Your task to perform on an android device: What's on my calendar today? Image 0: 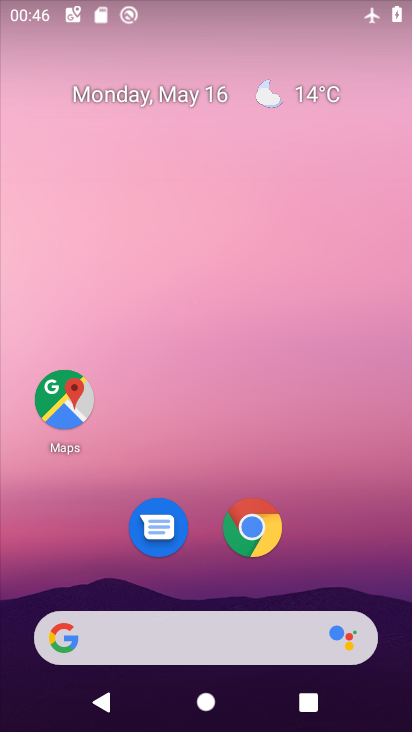
Step 0: drag from (212, 576) to (252, 11)
Your task to perform on an android device: What's on my calendar today? Image 1: 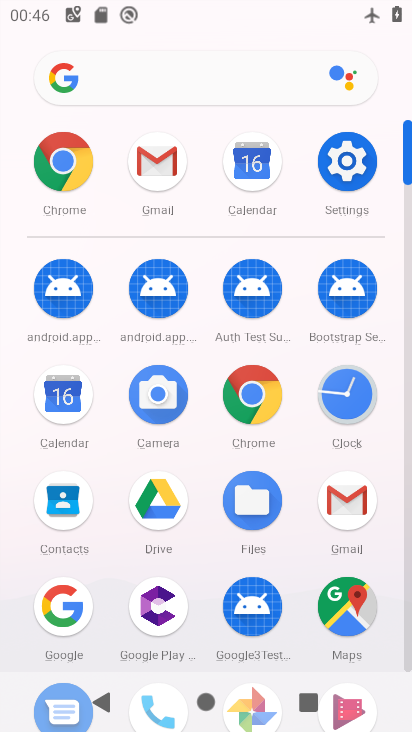
Step 1: click (263, 185)
Your task to perform on an android device: What's on my calendar today? Image 2: 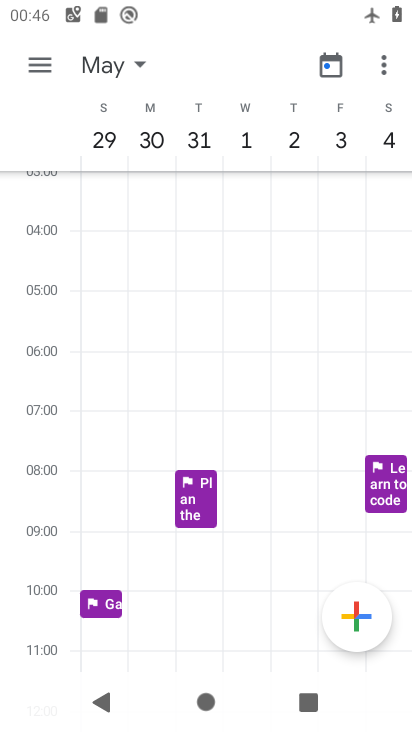
Step 2: drag from (95, 147) to (393, 127)
Your task to perform on an android device: What's on my calendar today? Image 3: 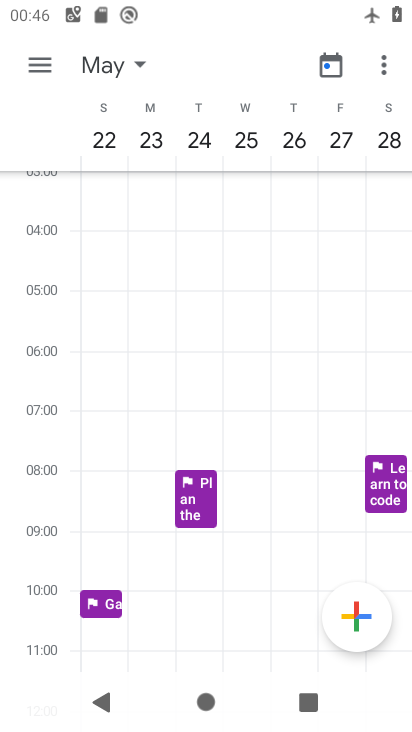
Step 3: drag from (113, 141) to (369, 139)
Your task to perform on an android device: What's on my calendar today? Image 4: 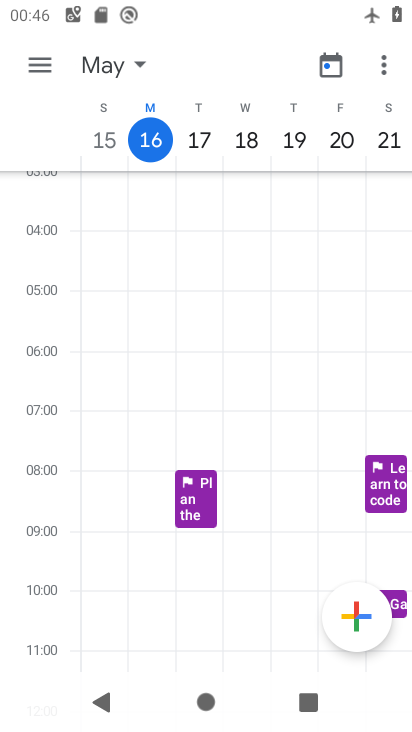
Step 4: click (39, 62)
Your task to perform on an android device: What's on my calendar today? Image 5: 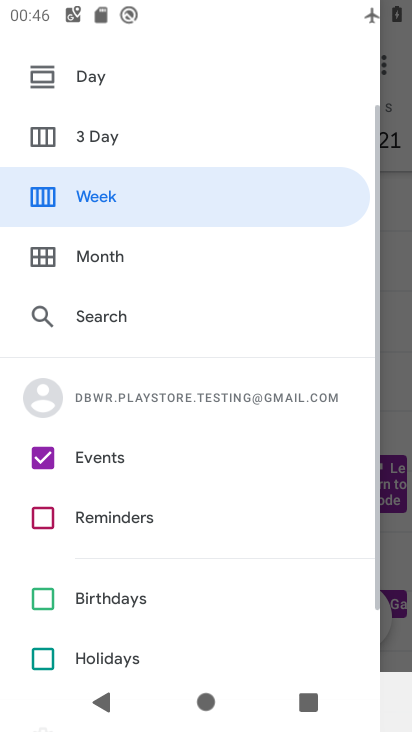
Step 5: click (51, 131)
Your task to perform on an android device: What's on my calendar today? Image 6: 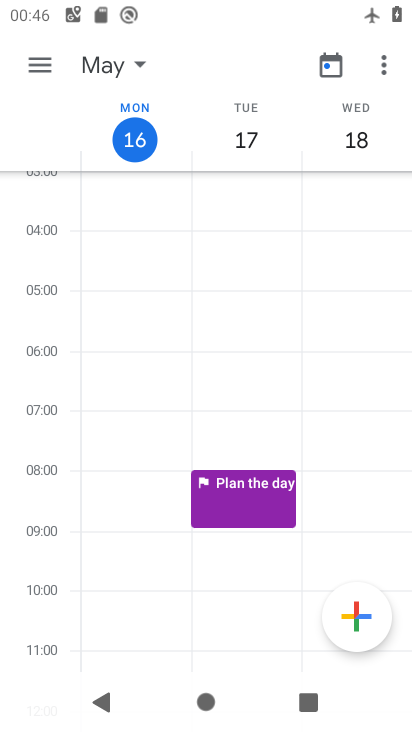
Step 6: click (33, 69)
Your task to perform on an android device: What's on my calendar today? Image 7: 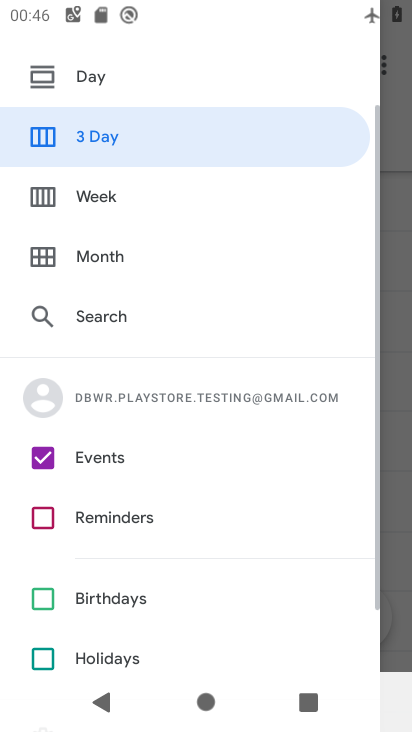
Step 7: click (94, 73)
Your task to perform on an android device: What's on my calendar today? Image 8: 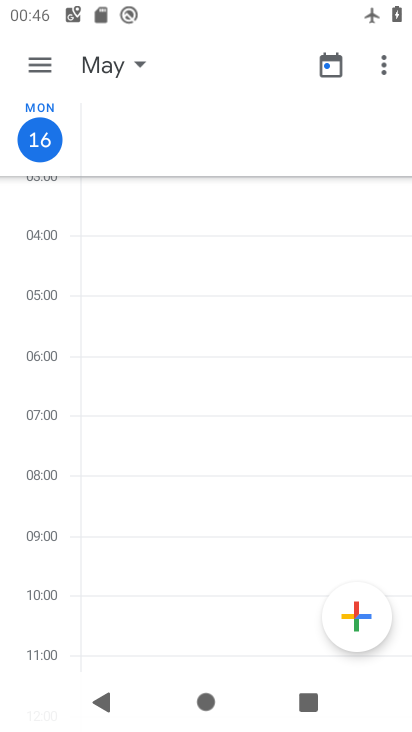
Step 8: task complete